Your task to perform on an android device: Open the web browser Image 0: 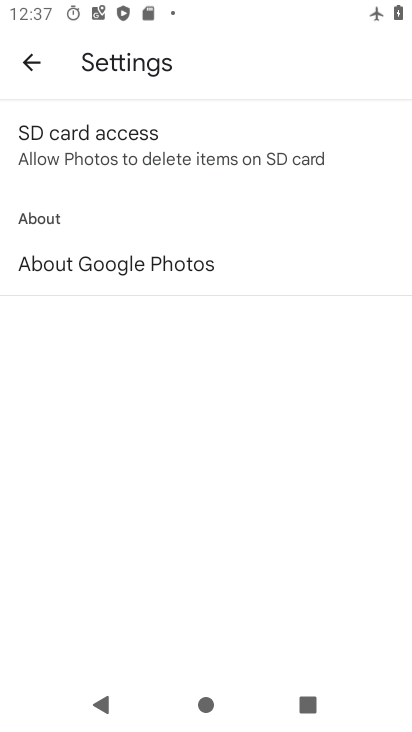
Step 0: press home button
Your task to perform on an android device: Open the web browser Image 1: 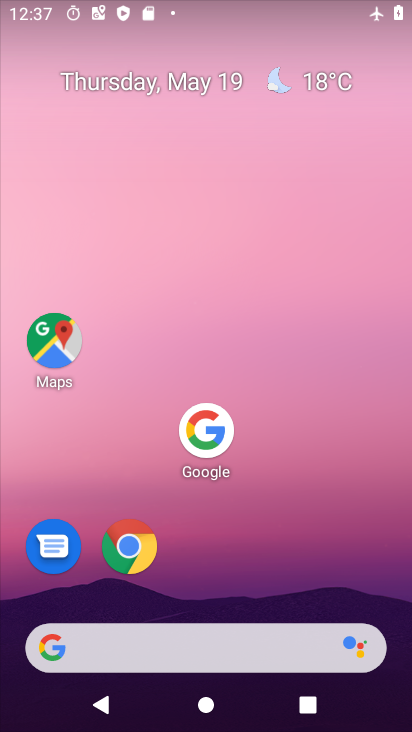
Step 1: click (214, 434)
Your task to perform on an android device: Open the web browser Image 2: 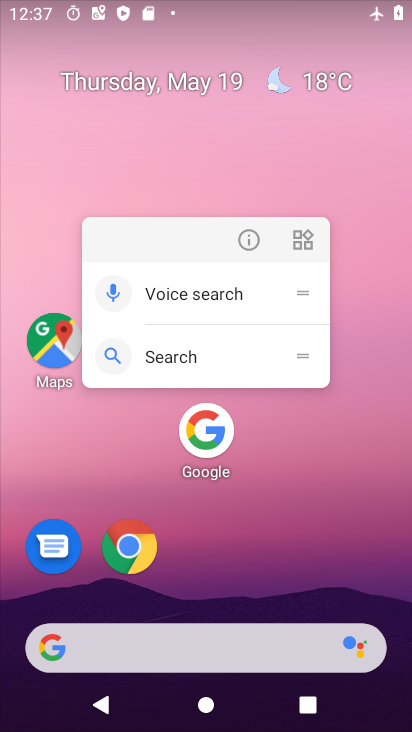
Step 2: click (212, 435)
Your task to perform on an android device: Open the web browser Image 3: 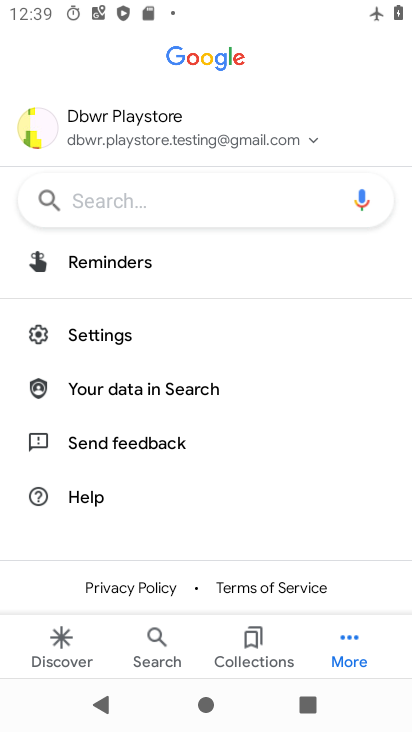
Step 3: task complete